Your task to perform on an android device: see tabs open on other devices in the chrome app Image 0: 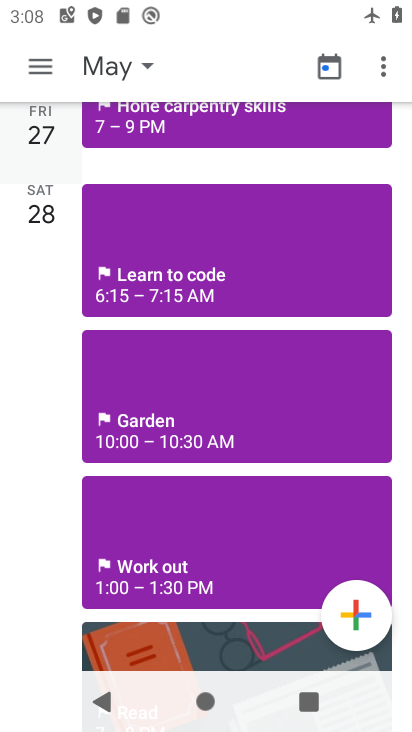
Step 0: press home button
Your task to perform on an android device: see tabs open on other devices in the chrome app Image 1: 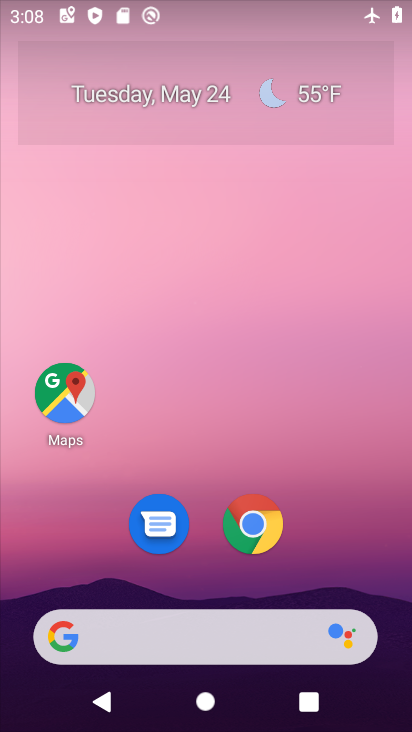
Step 1: click (262, 510)
Your task to perform on an android device: see tabs open on other devices in the chrome app Image 2: 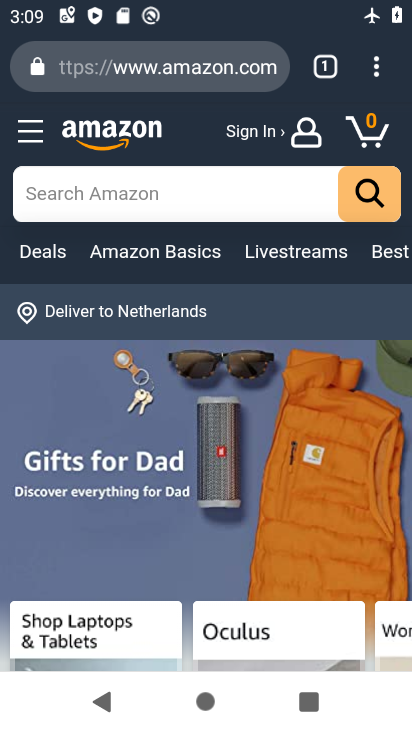
Step 2: click (378, 72)
Your task to perform on an android device: see tabs open on other devices in the chrome app Image 3: 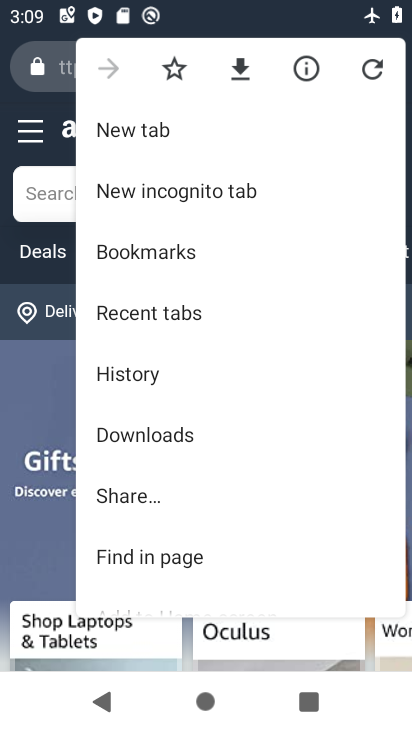
Step 3: click (190, 305)
Your task to perform on an android device: see tabs open on other devices in the chrome app Image 4: 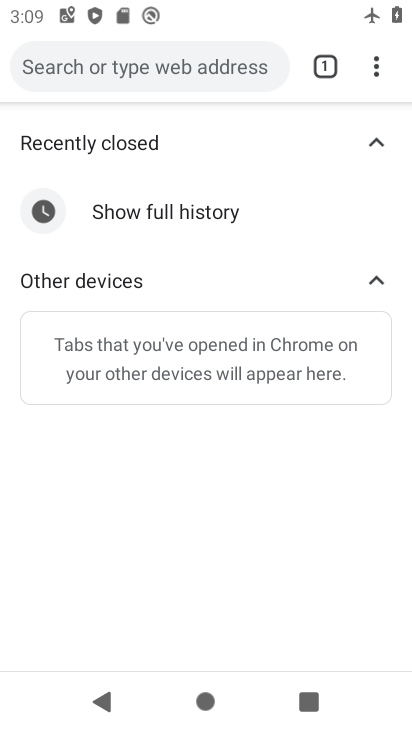
Step 4: task complete